Your task to perform on an android device: Open Google Maps and go to "Timeline" Image 0: 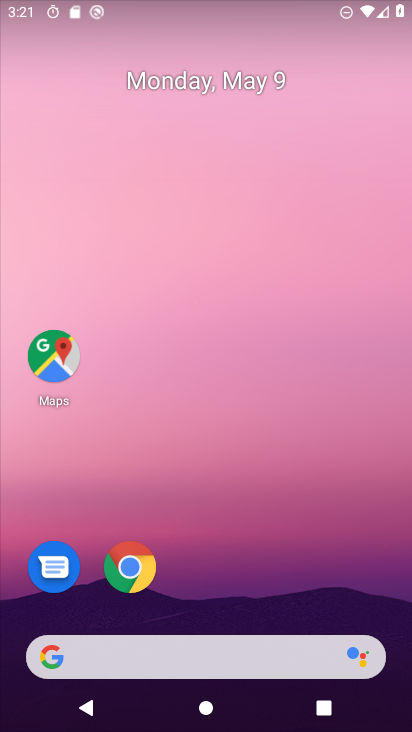
Step 0: click (51, 369)
Your task to perform on an android device: Open Google Maps and go to "Timeline" Image 1: 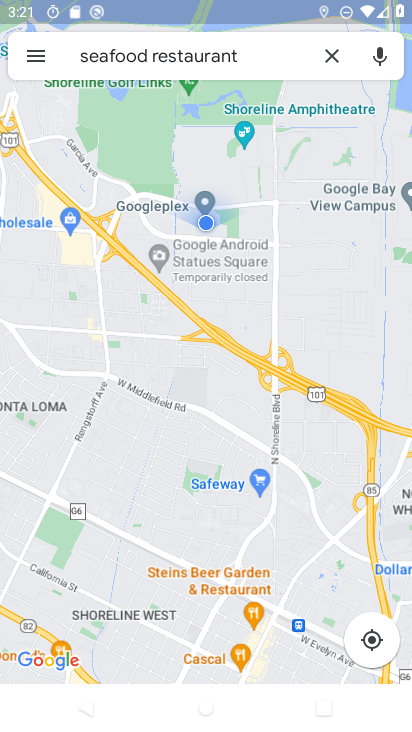
Step 1: click (37, 61)
Your task to perform on an android device: Open Google Maps and go to "Timeline" Image 2: 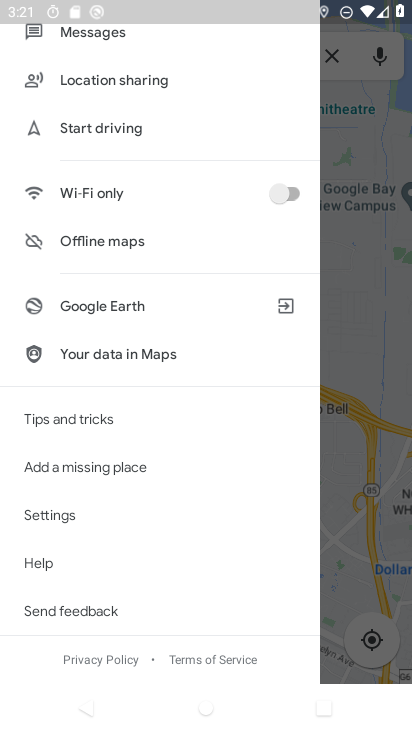
Step 2: drag from (189, 167) to (165, 561)
Your task to perform on an android device: Open Google Maps and go to "Timeline" Image 3: 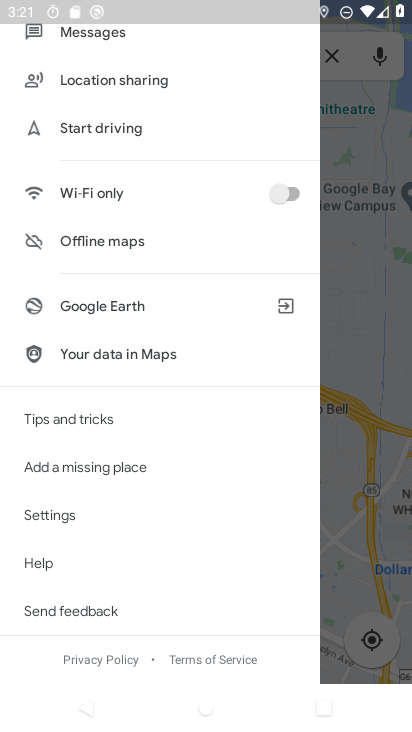
Step 3: drag from (132, 146) to (116, 399)
Your task to perform on an android device: Open Google Maps and go to "Timeline" Image 4: 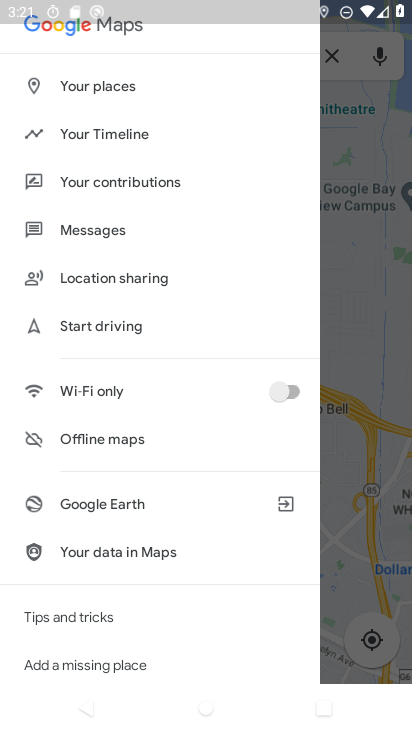
Step 4: click (107, 132)
Your task to perform on an android device: Open Google Maps and go to "Timeline" Image 5: 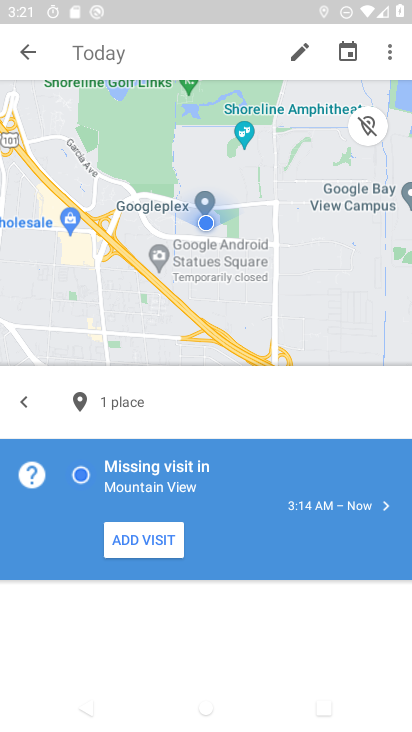
Step 5: task complete